Your task to perform on an android device: Go to accessibility settings Image 0: 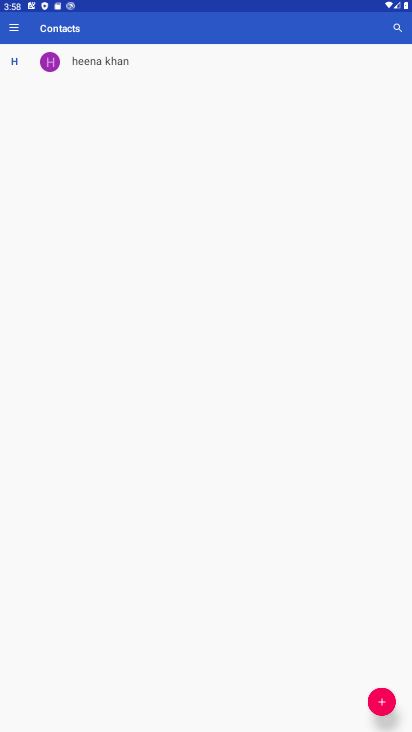
Step 0: press home button
Your task to perform on an android device: Go to accessibility settings Image 1: 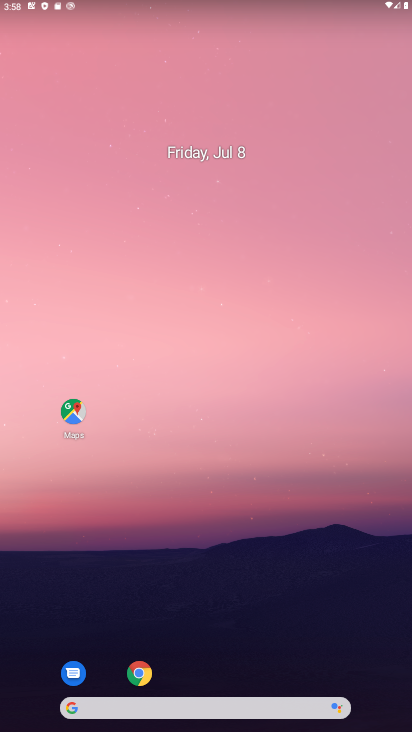
Step 1: drag from (212, 572) to (225, 76)
Your task to perform on an android device: Go to accessibility settings Image 2: 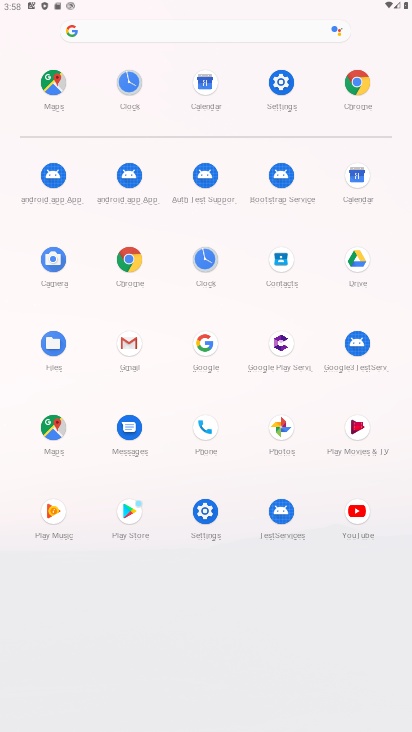
Step 2: click (291, 84)
Your task to perform on an android device: Go to accessibility settings Image 3: 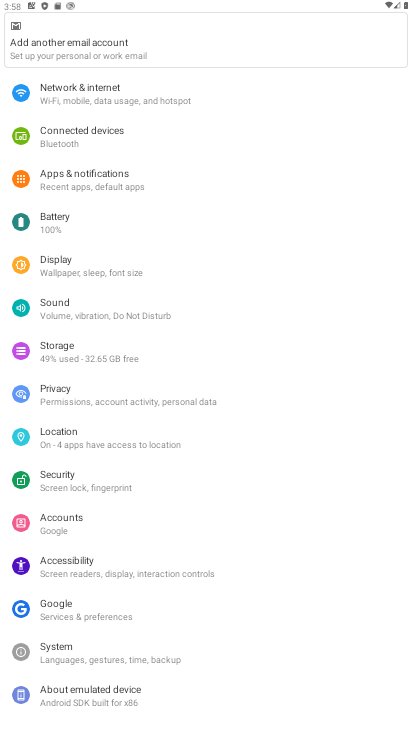
Step 3: click (60, 562)
Your task to perform on an android device: Go to accessibility settings Image 4: 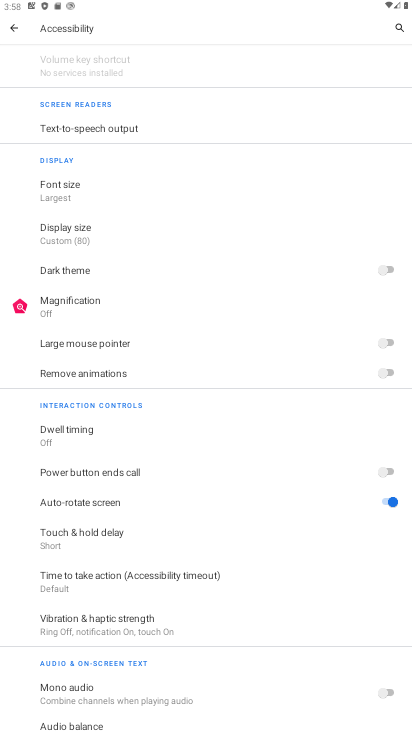
Step 4: task complete